Your task to perform on an android device: create a new album in the google photos Image 0: 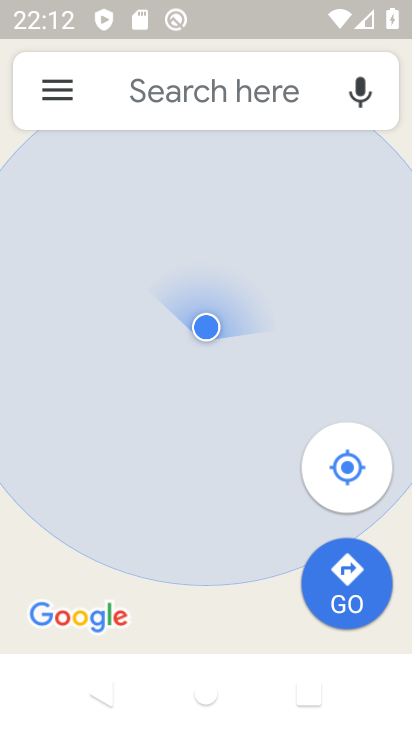
Step 0: press home button
Your task to perform on an android device: create a new album in the google photos Image 1: 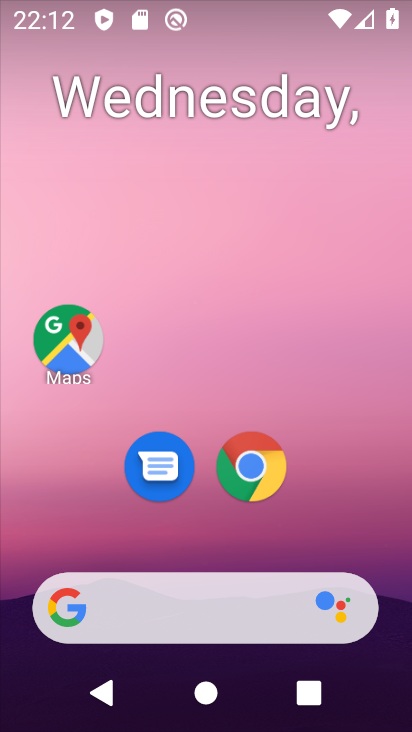
Step 1: drag from (204, 543) to (219, 34)
Your task to perform on an android device: create a new album in the google photos Image 2: 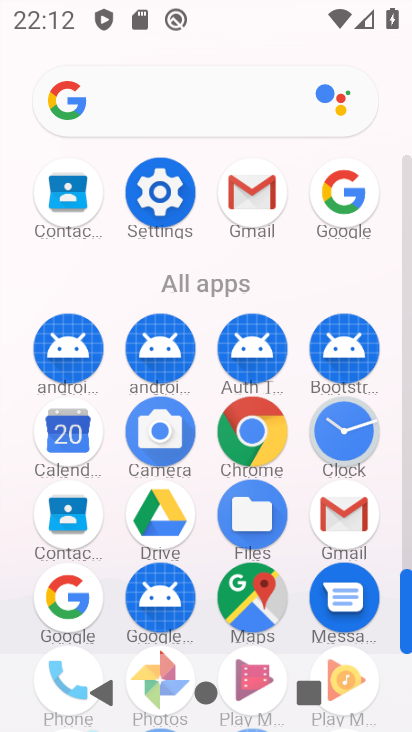
Step 2: drag from (200, 487) to (236, 30)
Your task to perform on an android device: create a new album in the google photos Image 3: 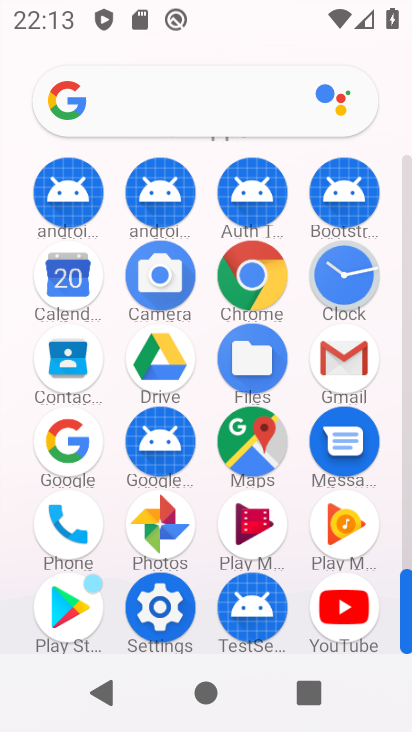
Step 3: click (157, 519)
Your task to perform on an android device: create a new album in the google photos Image 4: 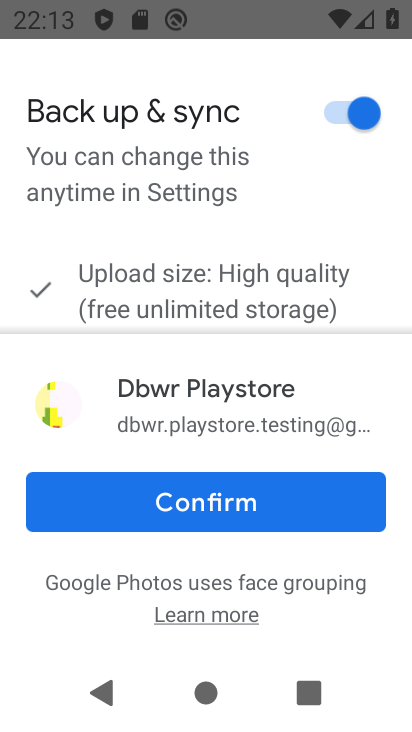
Step 4: click (207, 504)
Your task to perform on an android device: create a new album in the google photos Image 5: 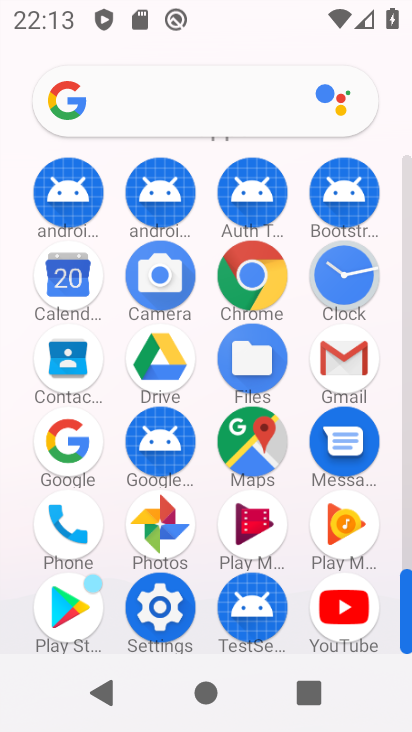
Step 5: click (156, 519)
Your task to perform on an android device: create a new album in the google photos Image 6: 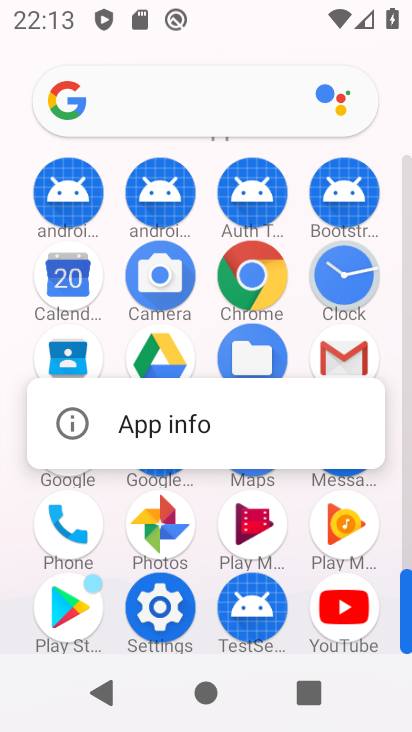
Step 6: click (160, 516)
Your task to perform on an android device: create a new album in the google photos Image 7: 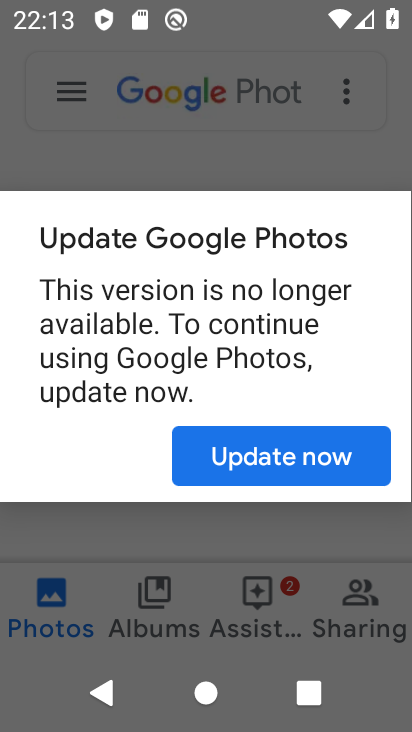
Step 7: click (283, 456)
Your task to perform on an android device: create a new album in the google photos Image 8: 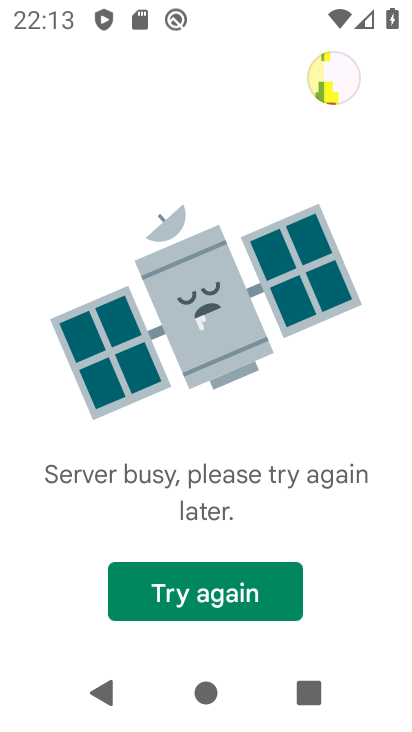
Step 8: press back button
Your task to perform on an android device: create a new album in the google photos Image 9: 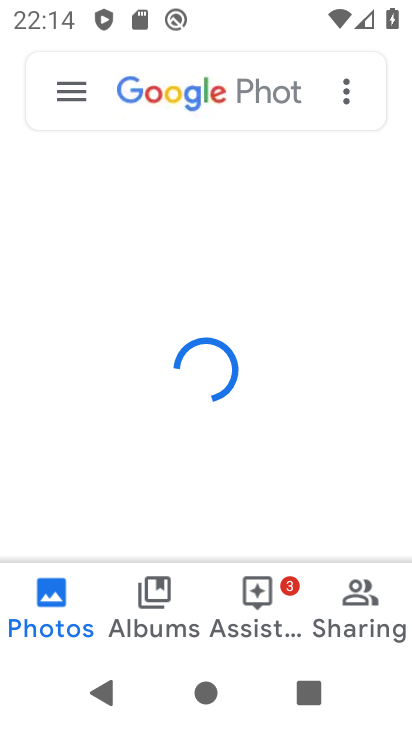
Step 9: click (143, 586)
Your task to perform on an android device: create a new album in the google photos Image 10: 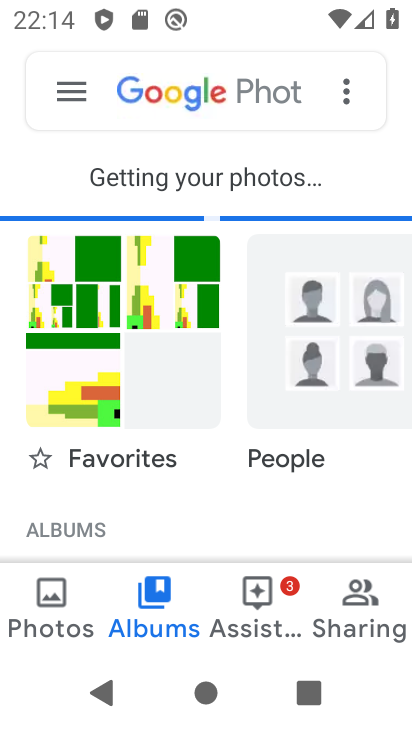
Step 10: click (348, 89)
Your task to perform on an android device: create a new album in the google photos Image 11: 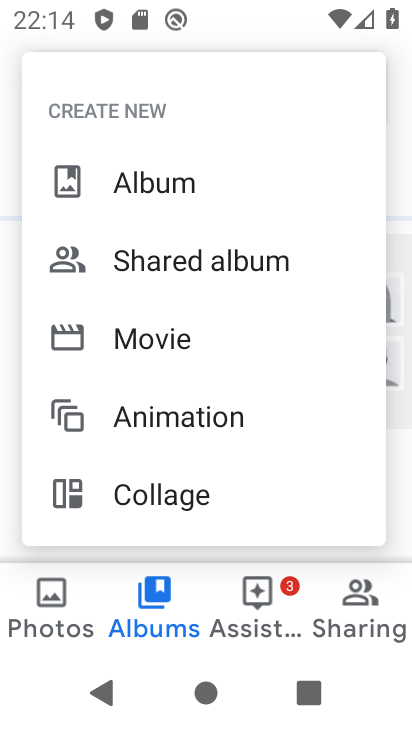
Step 11: click (99, 178)
Your task to perform on an android device: create a new album in the google photos Image 12: 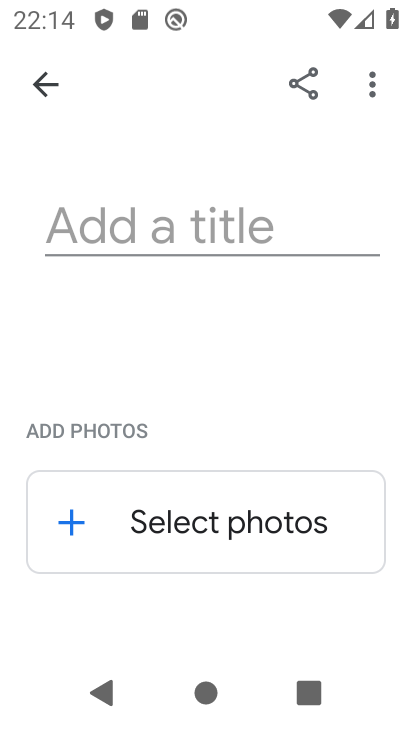
Step 12: click (78, 527)
Your task to perform on an android device: create a new album in the google photos Image 13: 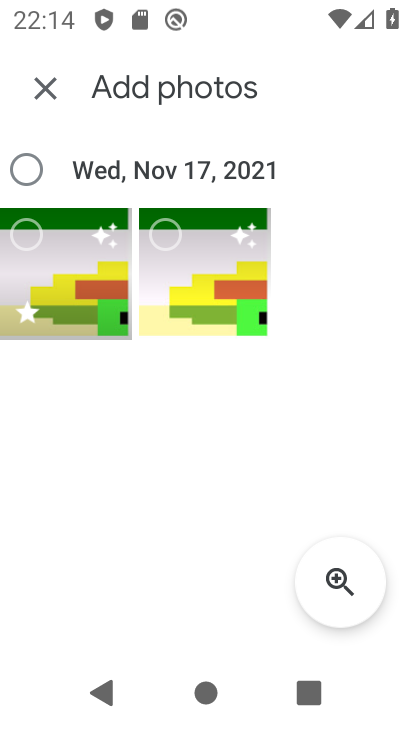
Step 13: click (24, 172)
Your task to perform on an android device: create a new album in the google photos Image 14: 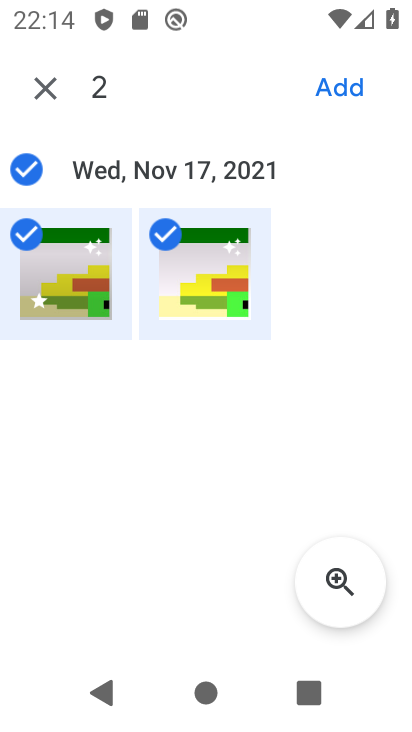
Step 14: click (341, 84)
Your task to perform on an android device: create a new album in the google photos Image 15: 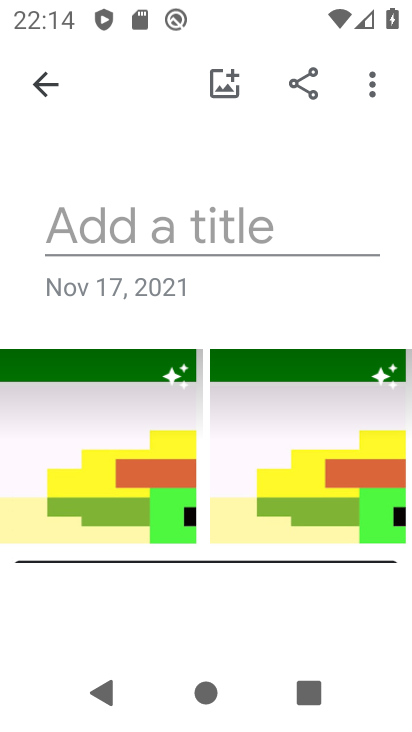
Step 15: click (165, 220)
Your task to perform on an android device: create a new album in the google photos Image 16: 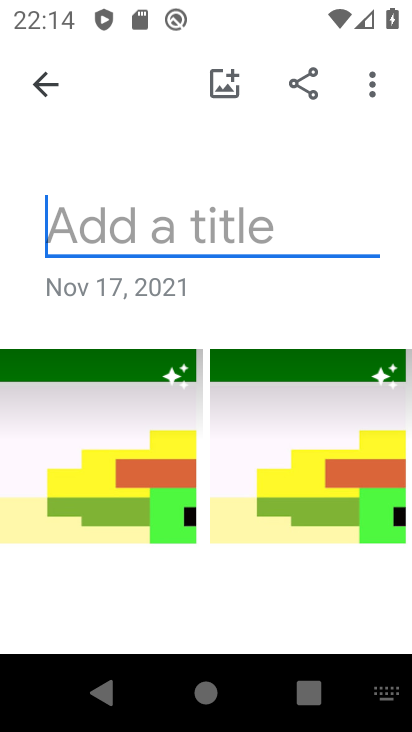
Step 16: type "mnnbgd"
Your task to perform on an android device: create a new album in the google photos Image 17: 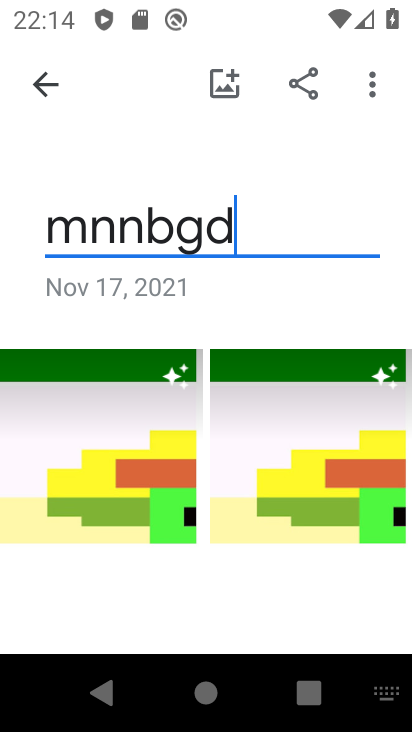
Step 17: click (234, 601)
Your task to perform on an android device: create a new album in the google photos Image 18: 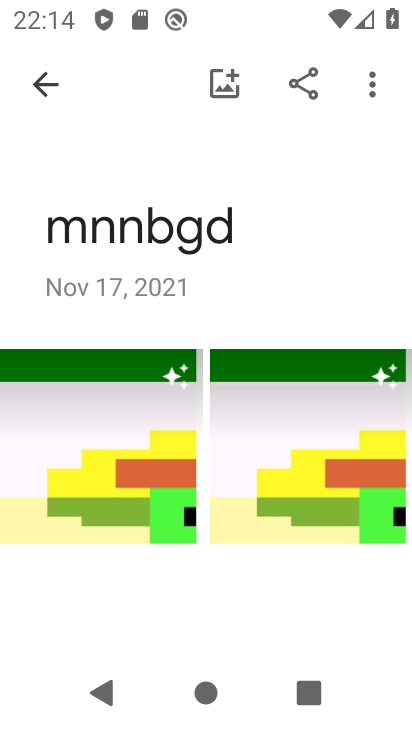
Step 18: task complete